Your task to perform on an android device: What's the weather going to be this weekend? Image 0: 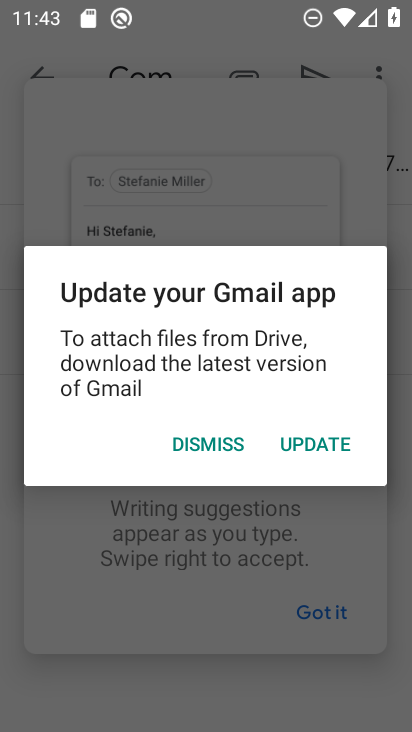
Step 0: press home button
Your task to perform on an android device: What's the weather going to be this weekend? Image 1: 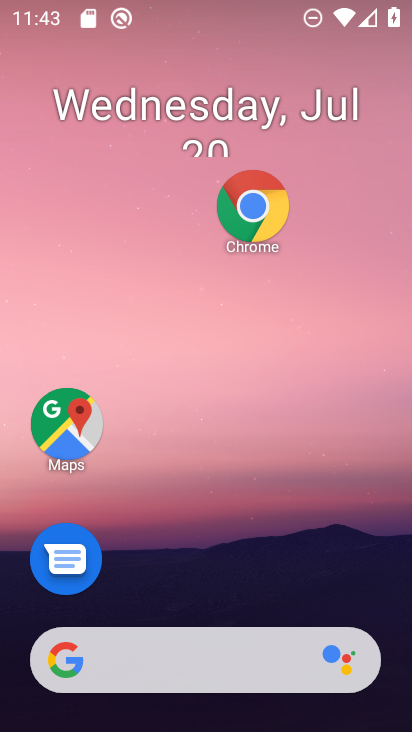
Step 1: drag from (191, 666) to (240, 177)
Your task to perform on an android device: What's the weather going to be this weekend? Image 2: 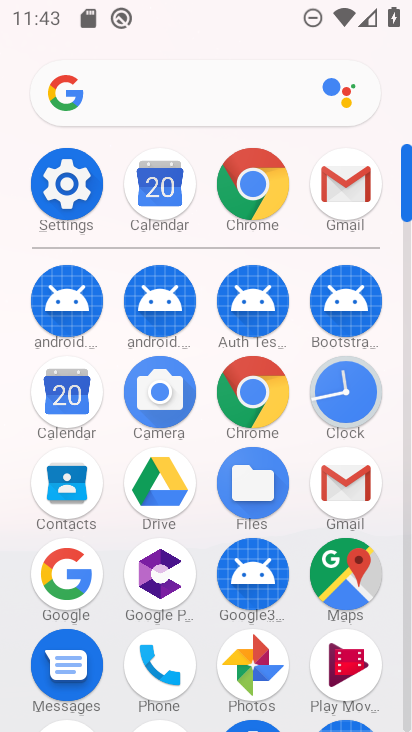
Step 2: drag from (246, 559) to (230, 307)
Your task to perform on an android device: What's the weather going to be this weekend? Image 3: 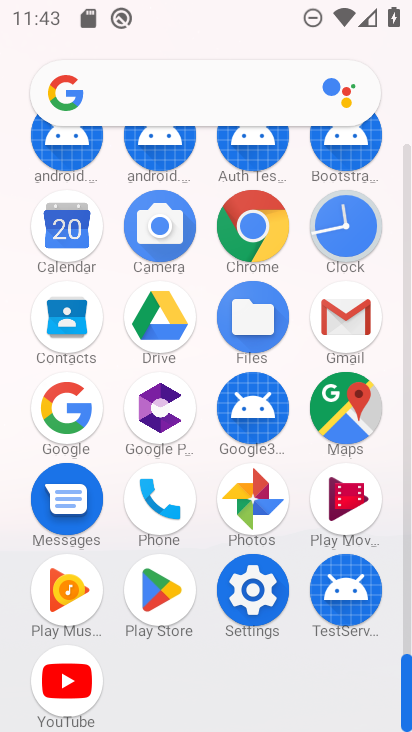
Step 3: click (61, 426)
Your task to perform on an android device: What's the weather going to be this weekend? Image 4: 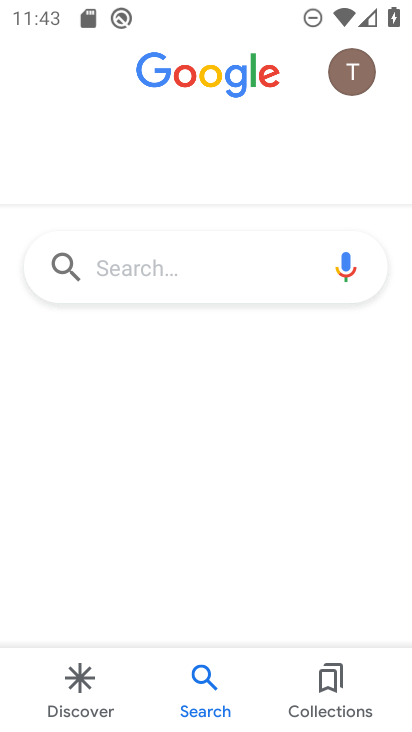
Step 4: click (164, 290)
Your task to perform on an android device: What's the weather going to be this weekend? Image 5: 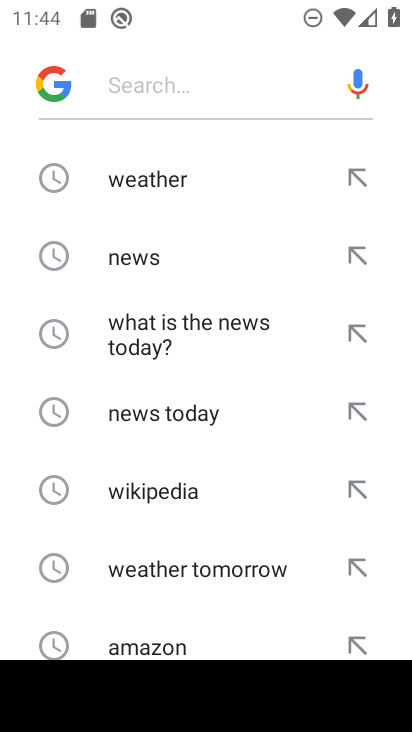
Step 5: click (192, 188)
Your task to perform on an android device: What's the weather going to be this weekend? Image 6: 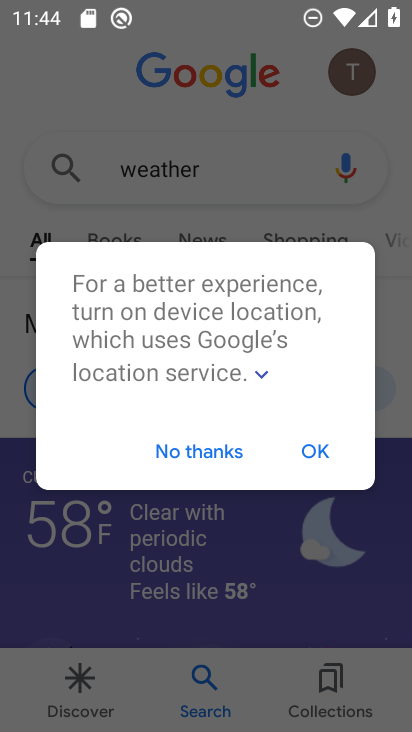
Step 6: click (306, 459)
Your task to perform on an android device: What's the weather going to be this weekend? Image 7: 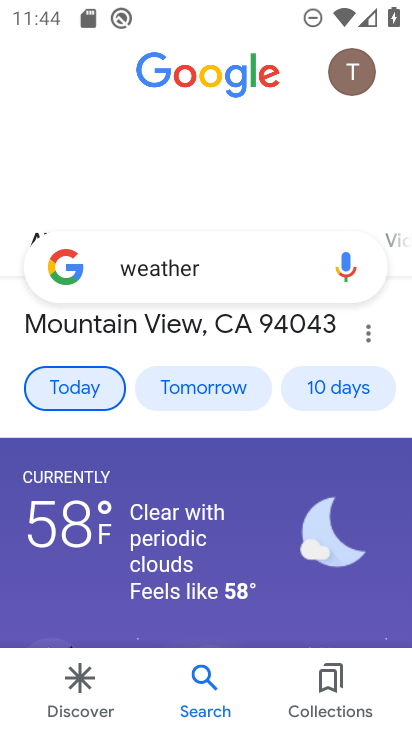
Step 7: click (342, 394)
Your task to perform on an android device: What's the weather going to be this weekend? Image 8: 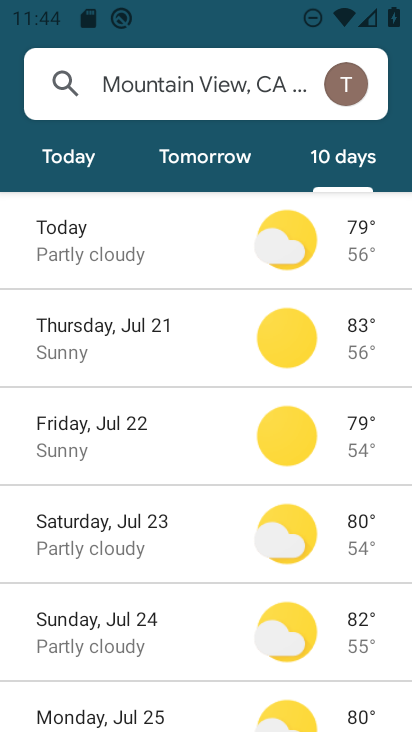
Step 8: task complete